Your task to perform on an android device: check out phone information Image 0: 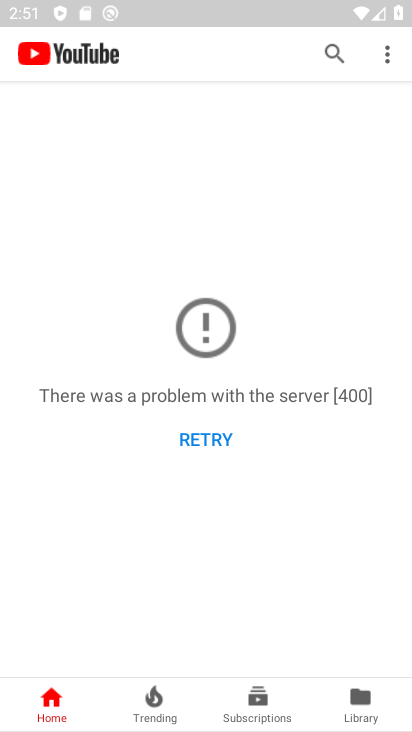
Step 0: press back button
Your task to perform on an android device: check out phone information Image 1: 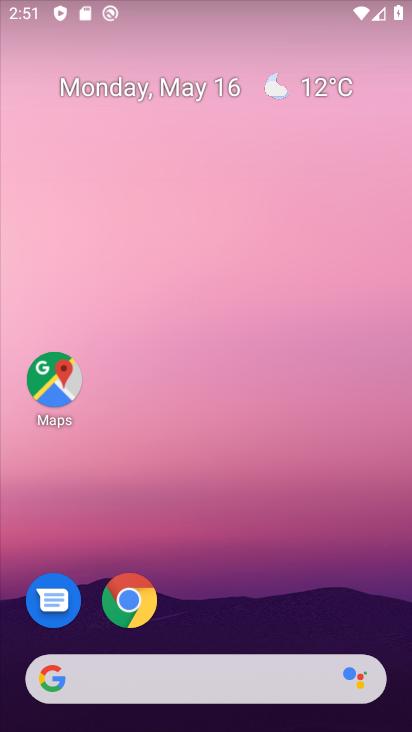
Step 1: drag from (257, 631) to (197, 15)
Your task to perform on an android device: check out phone information Image 2: 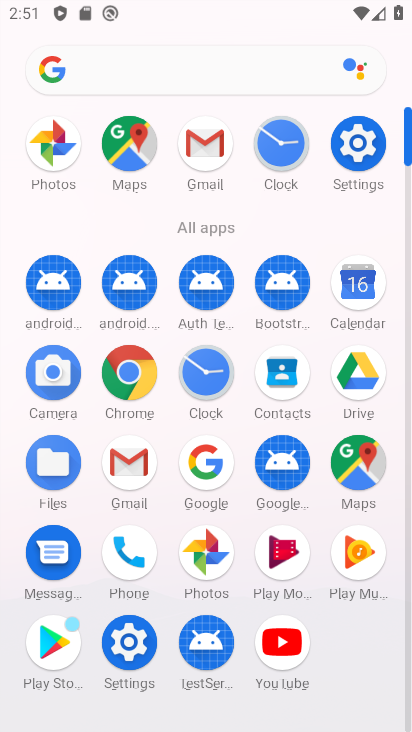
Step 2: click (356, 141)
Your task to perform on an android device: check out phone information Image 3: 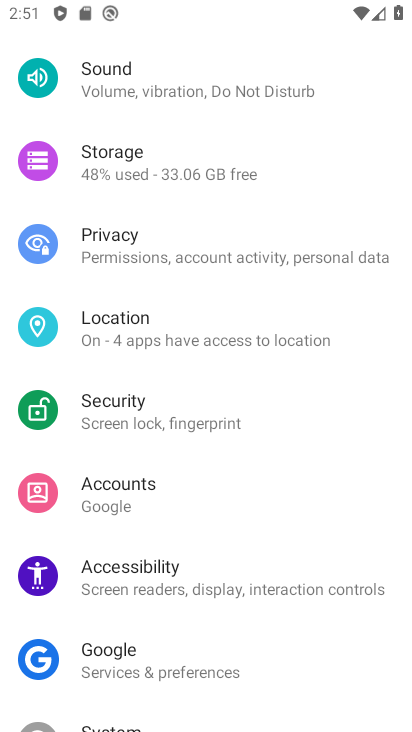
Step 3: drag from (232, 644) to (206, 183)
Your task to perform on an android device: check out phone information Image 4: 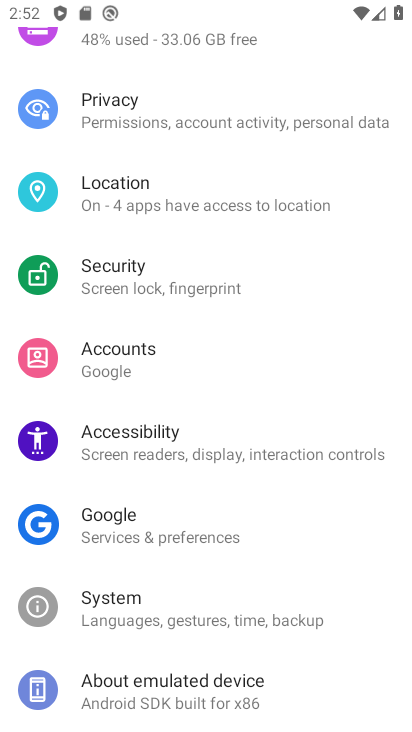
Step 4: drag from (172, 588) to (151, 216)
Your task to perform on an android device: check out phone information Image 5: 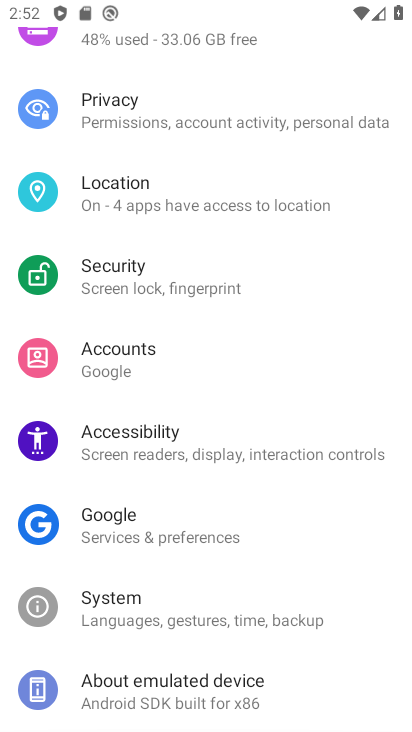
Step 5: click (206, 682)
Your task to perform on an android device: check out phone information Image 6: 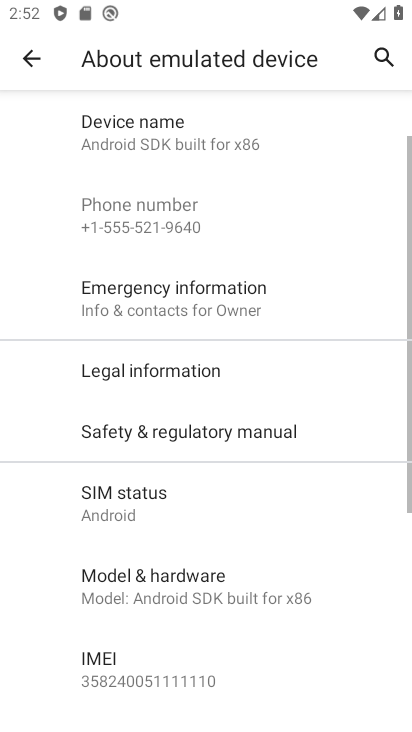
Step 6: task complete